Your task to perform on an android device: search for starred emails in the gmail app Image 0: 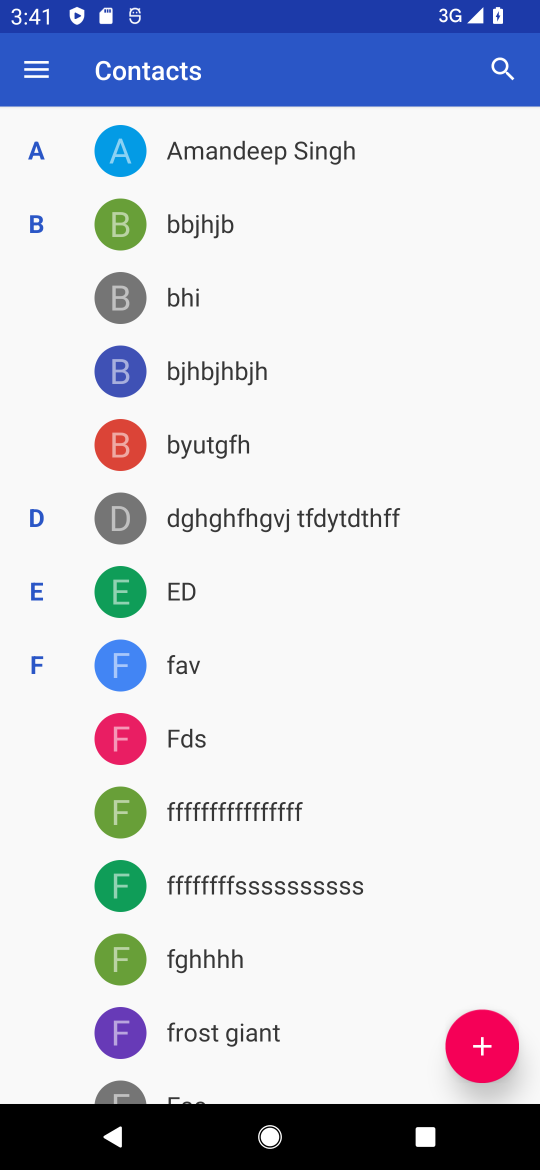
Step 0: press home button
Your task to perform on an android device: search for starred emails in the gmail app Image 1: 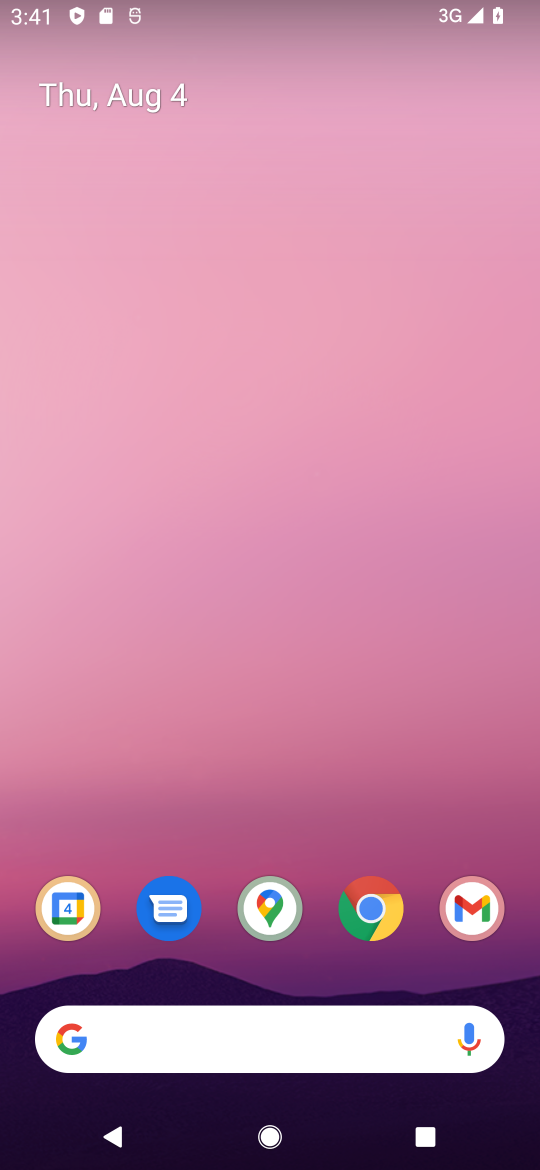
Step 1: click (479, 906)
Your task to perform on an android device: search for starred emails in the gmail app Image 2: 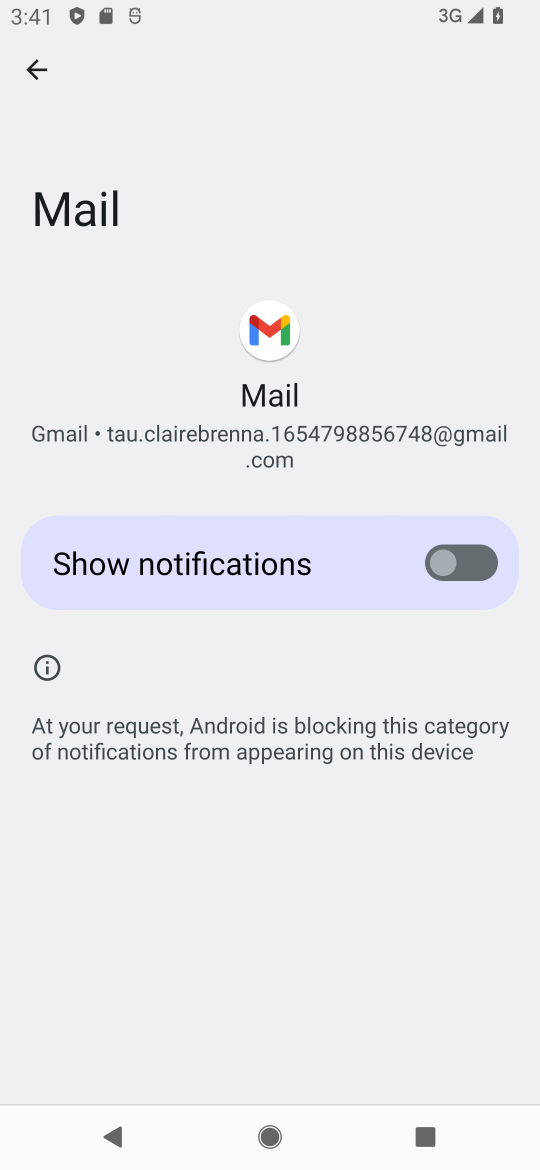
Step 2: click (41, 60)
Your task to perform on an android device: search for starred emails in the gmail app Image 3: 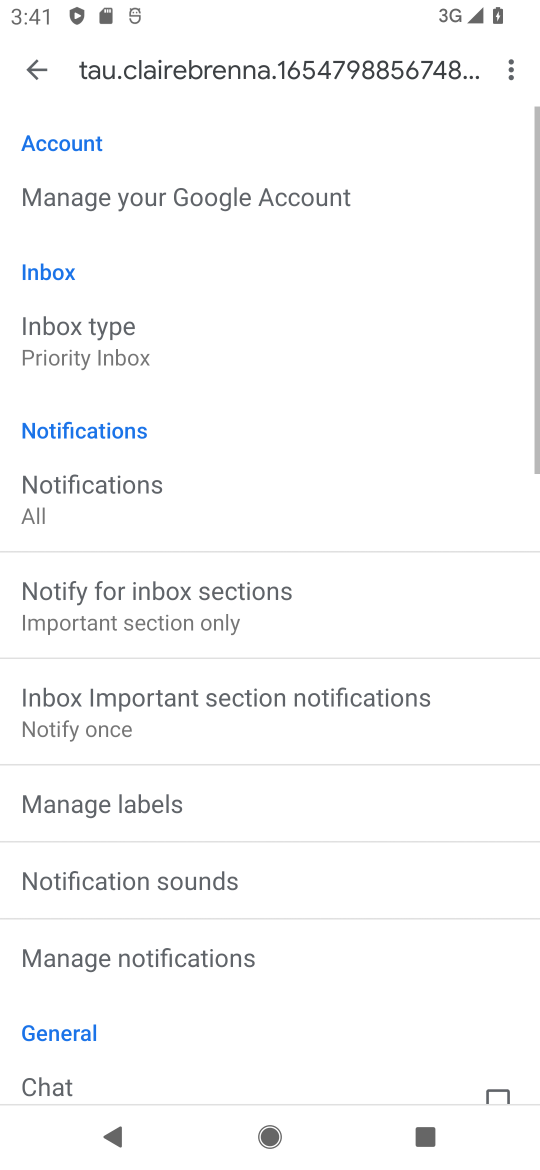
Step 3: click (41, 60)
Your task to perform on an android device: search for starred emails in the gmail app Image 4: 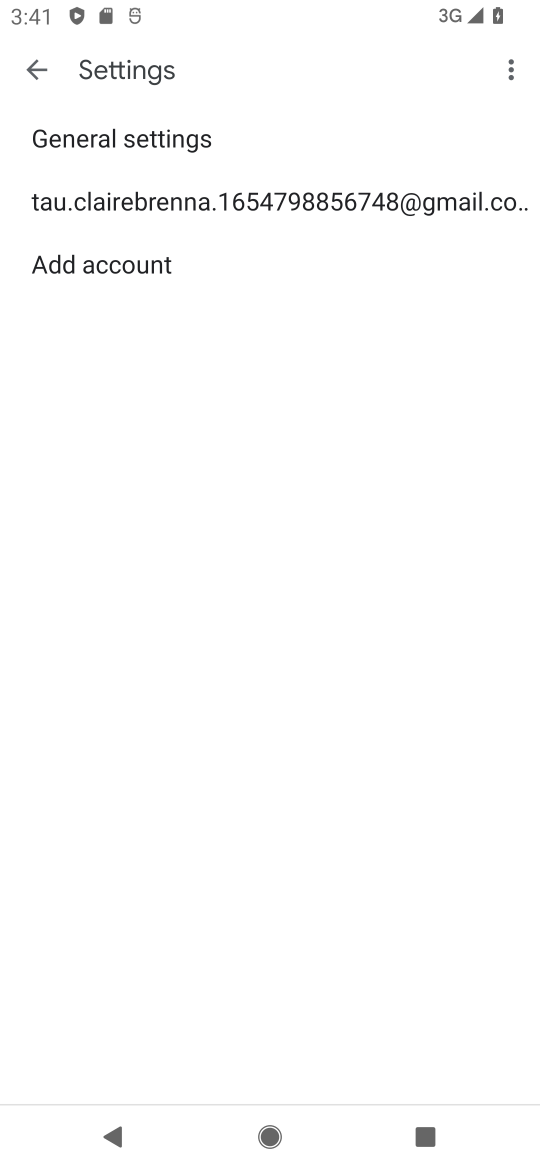
Step 4: click (41, 60)
Your task to perform on an android device: search for starred emails in the gmail app Image 5: 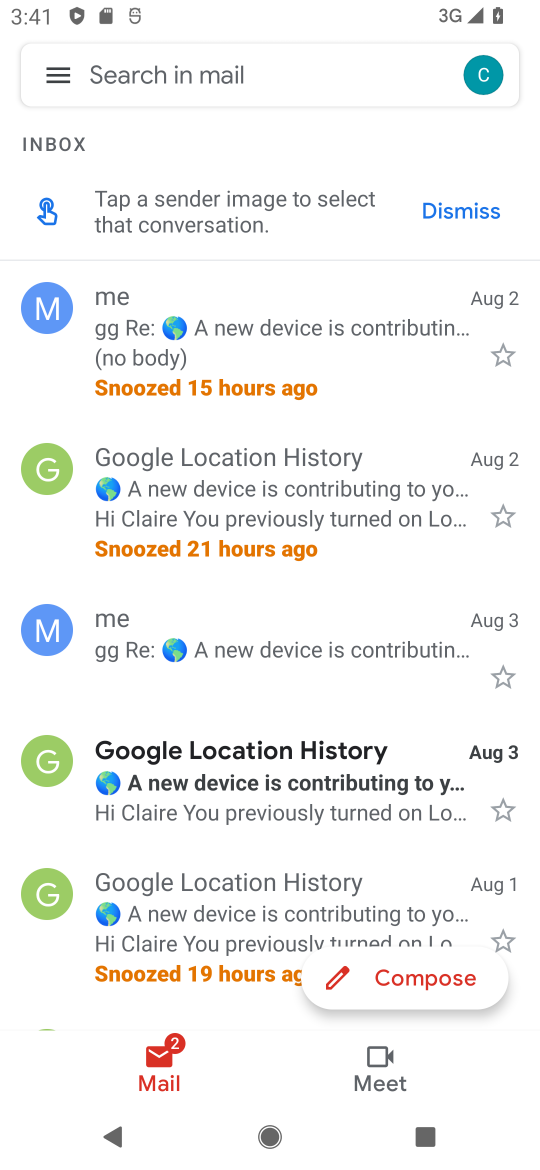
Step 5: click (56, 61)
Your task to perform on an android device: search for starred emails in the gmail app Image 6: 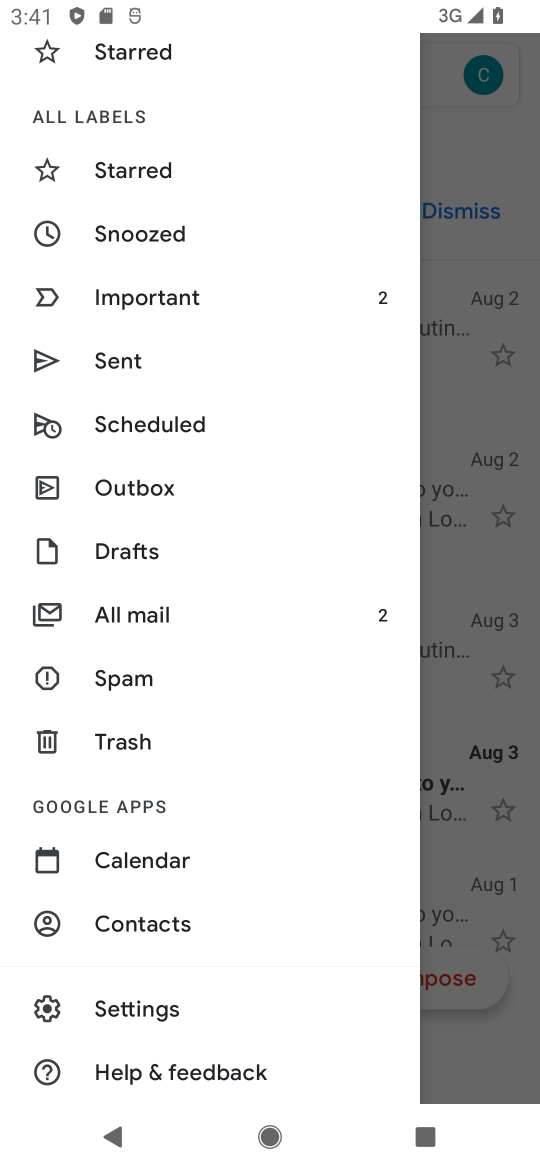
Step 6: click (167, 157)
Your task to perform on an android device: search for starred emails in the gmail app Image 7: 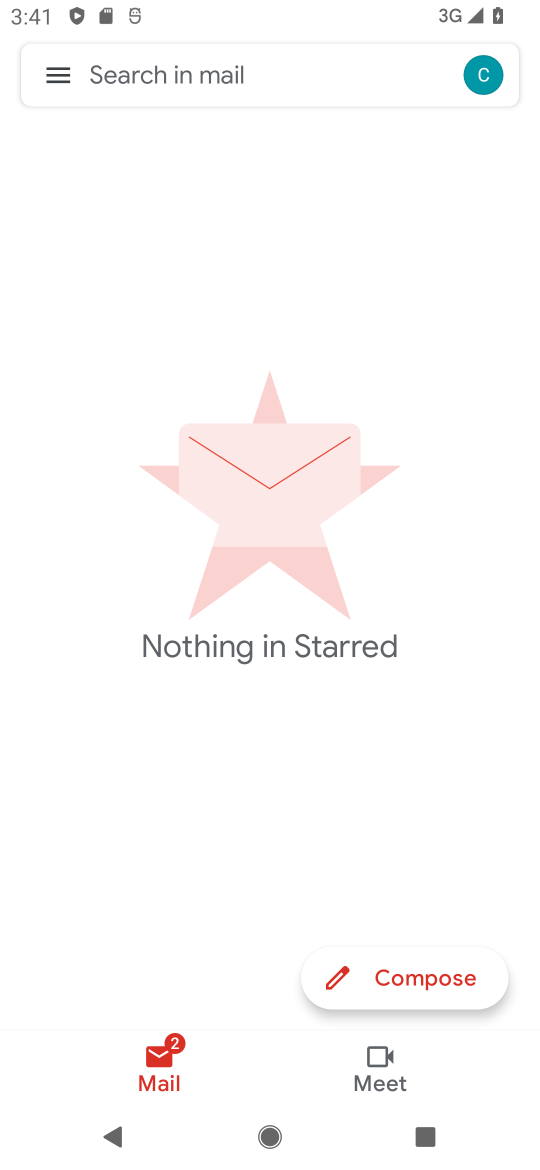
Step 7: task complete